Your task to perform on an android device: Open calendar and show me the second week of next month Image 0: 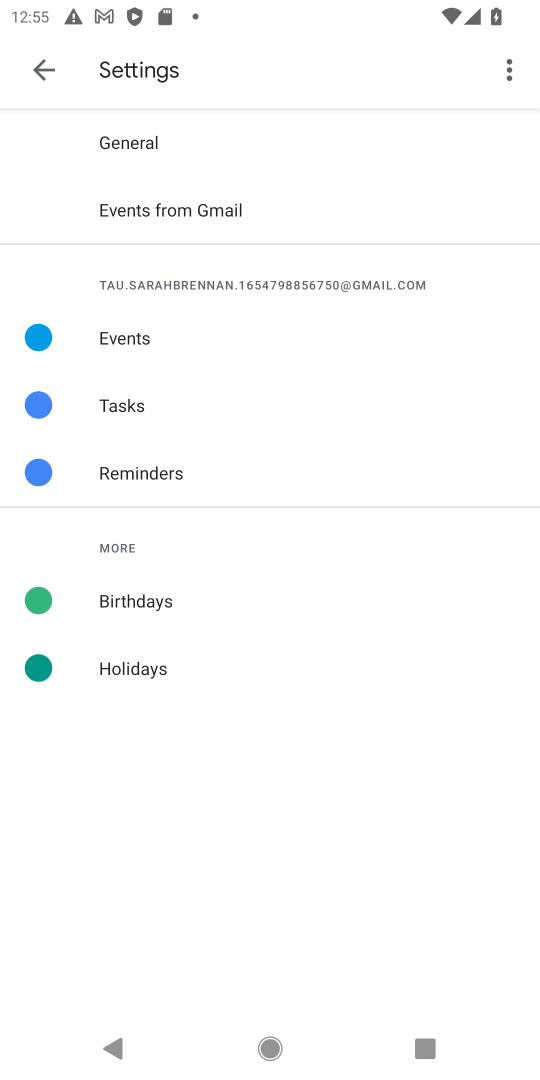
Step 0: press home button
Your task to perform on an android device: Open calendar and show me the second week of next month Image 1: 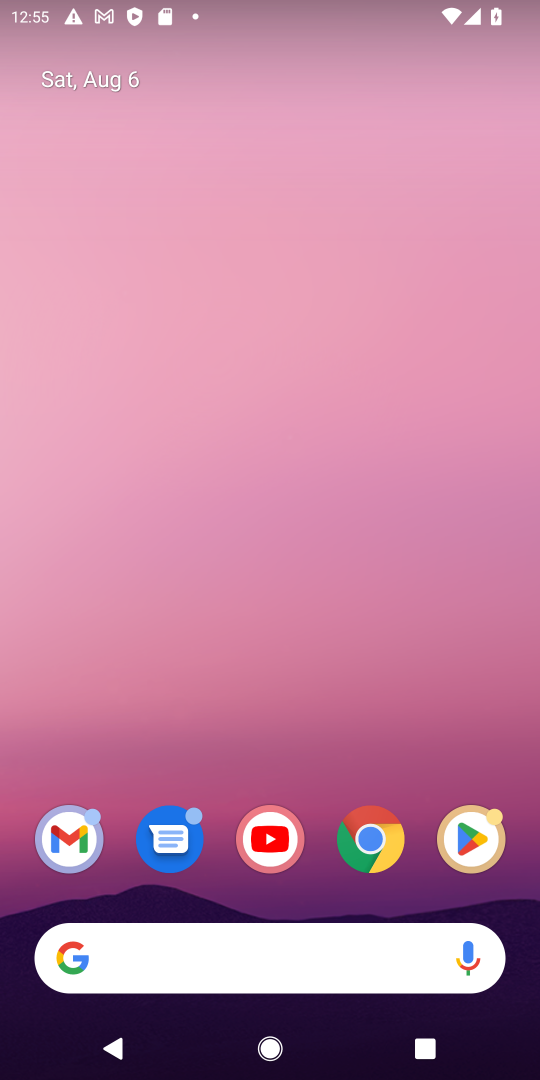
Step 1: drag from (216, 815) to (272, 153)
Your task to perform on an android device: Open calendar and show me the second week of next month Image 2: 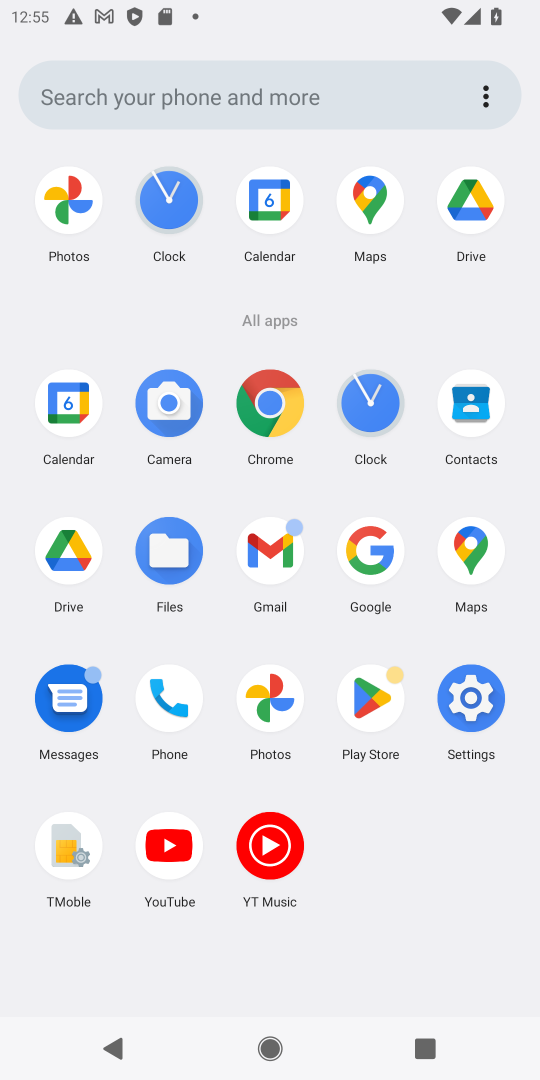
Step 2: click (74, 412)
Your task to perform on an android device: Open calendar and show me the second week of next month Image 3: 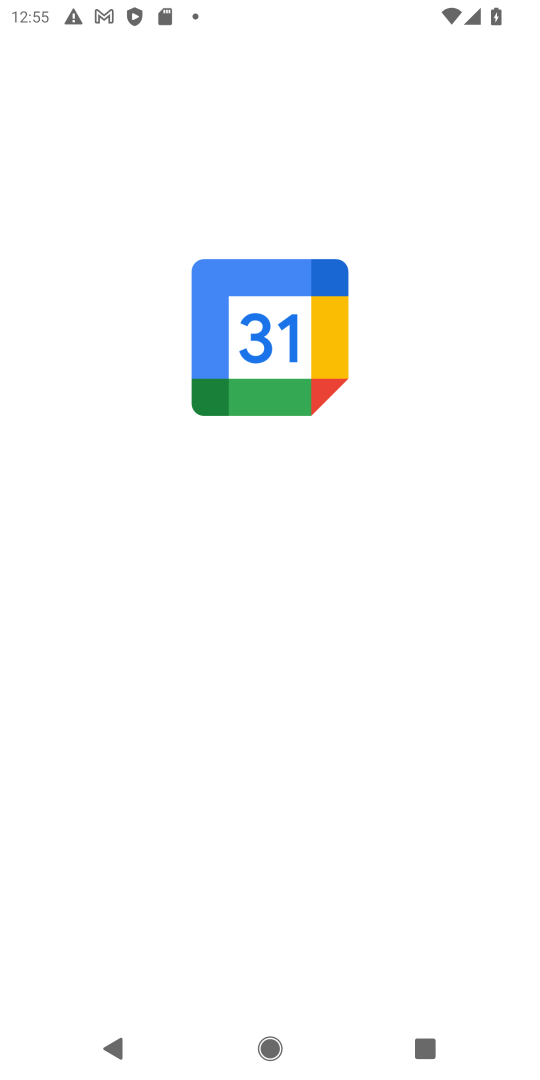
Step 3: click (74, 412)
Your task to perform on an android device: Open calendar and show me the second week of next month Image 4: 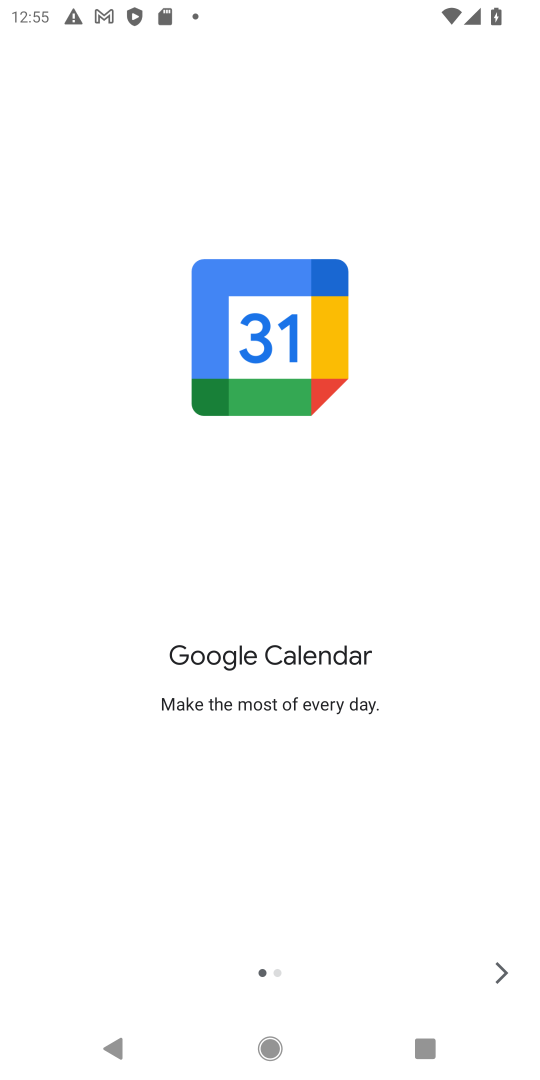
Step 4: click (488, 966)
Your task to perform on an android device: Open calendar and show me the second week of next month Image 5: 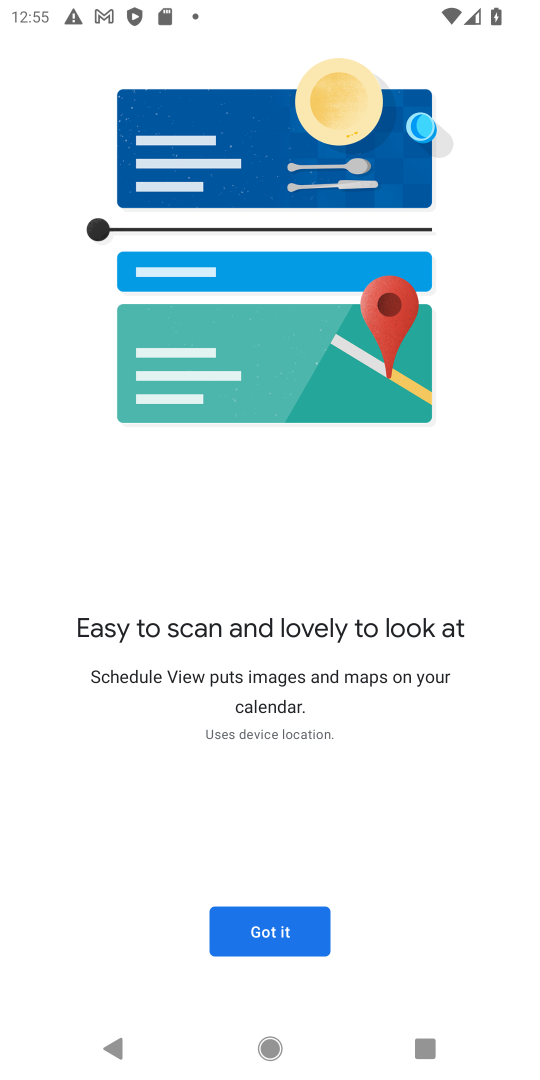
Step 5: click (266, 922)
Your task to perform on an android device: Open calendar and show me the second week of next month Image 6: 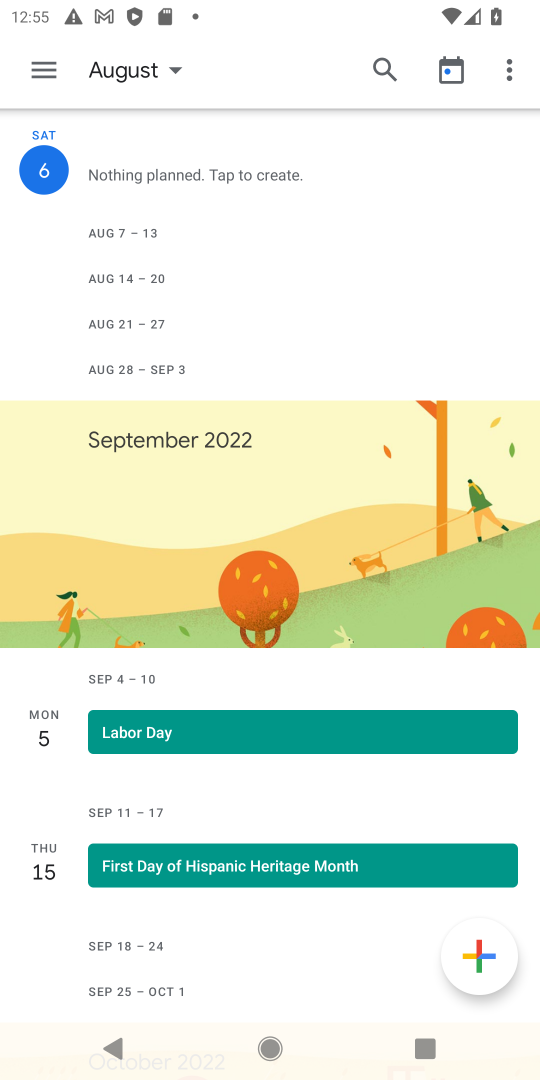
Step 6: click (147, 76)
Your task to perform on an android device: Open calendar and show me the second week of next month Image 7: 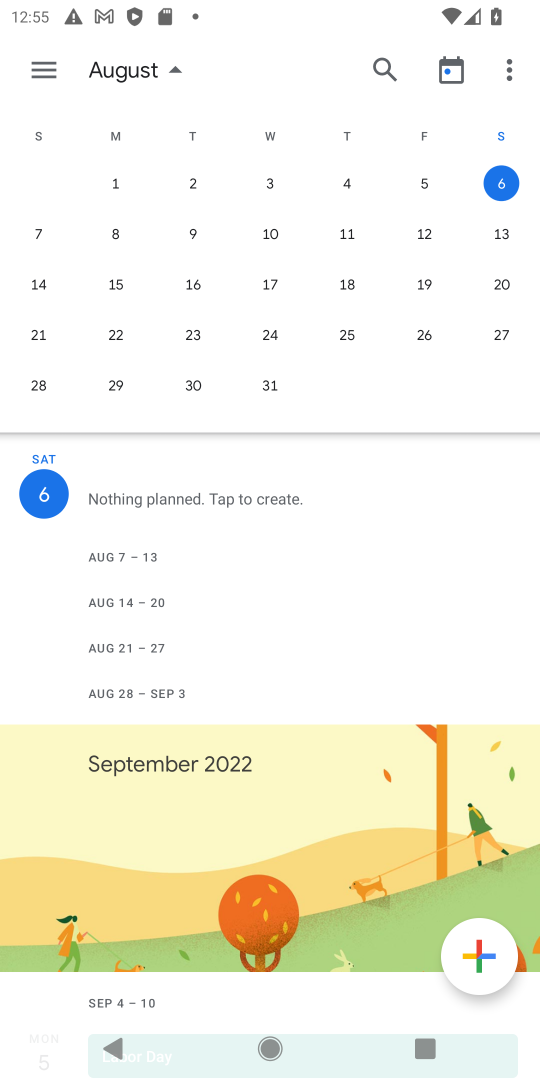
Step 7: drag from (484, 267) to (19, 207)
Your task to perform on an android device: Open calendar and show me the second week of next month Image 8: 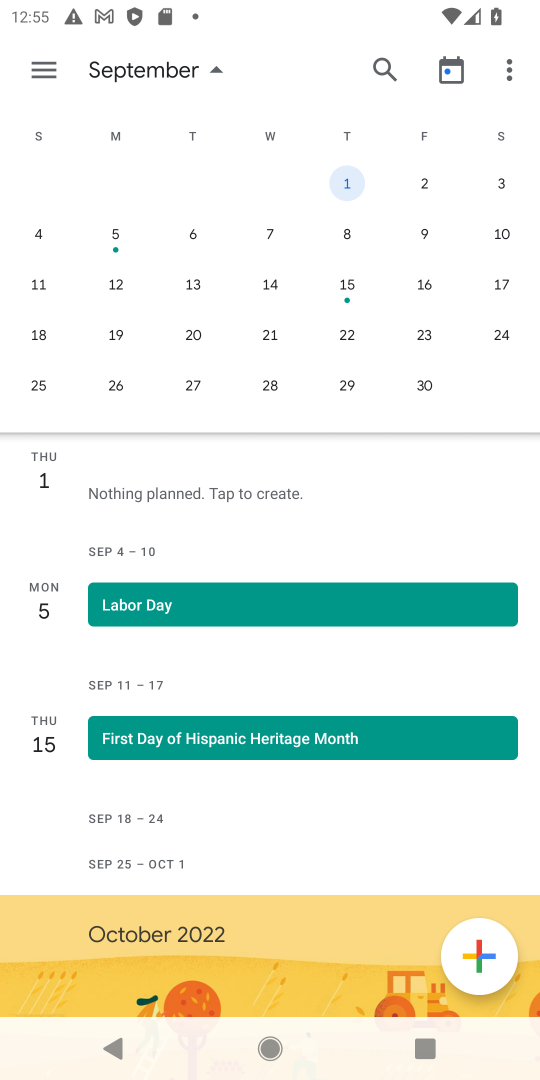
Step 8: click (46, 240)
Your task to perform on an android device: Open calendar and show me the second week of next month Image 9: 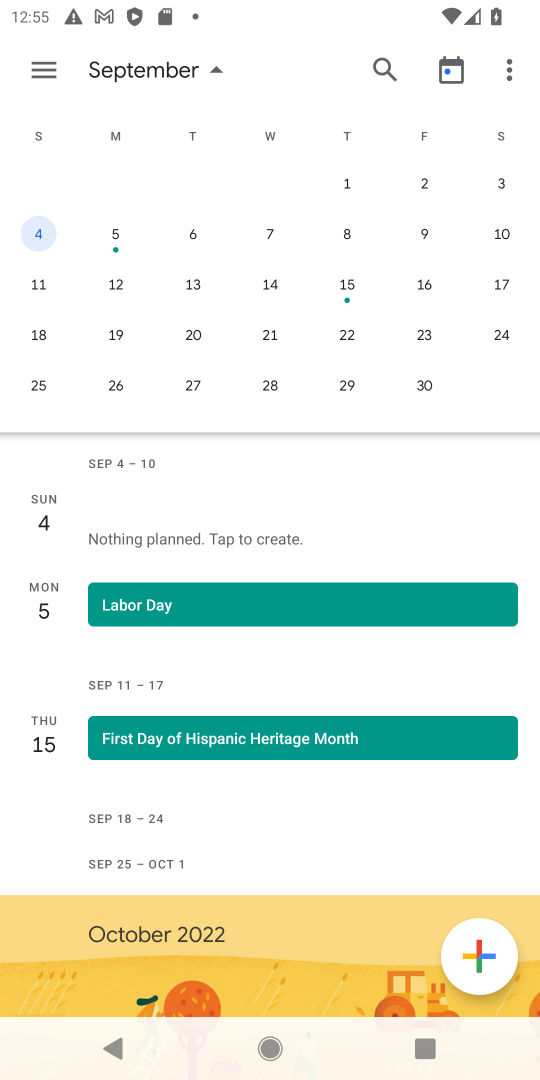
Step 9: task complete